Your task to perform on an android device: Show me popular games on the Play Store Image 0: 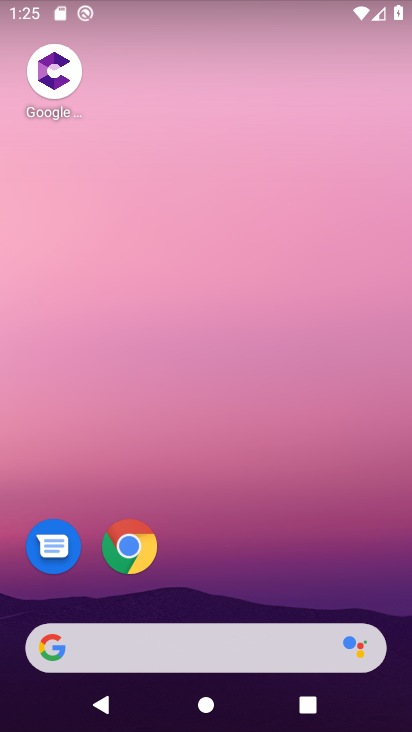
Step 0: drag from (170, 557) to (192, 246)
Your task to perform on an android device: Show me popular games on the Play Store Image 1: 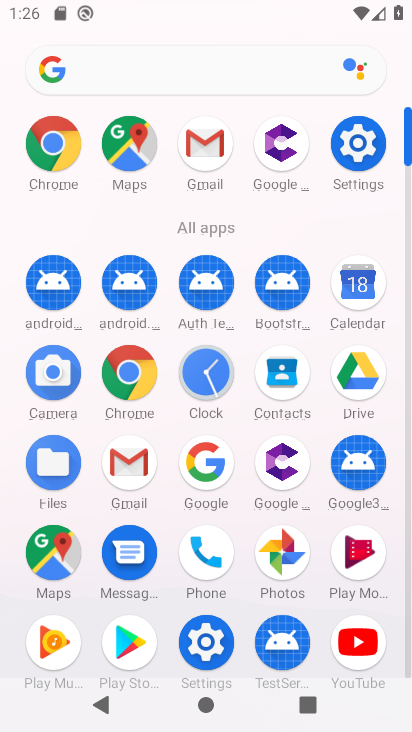
Step 1: click (135, 643)
Your task to perform on an android device: Show me popular games on the Play Store Image 2: 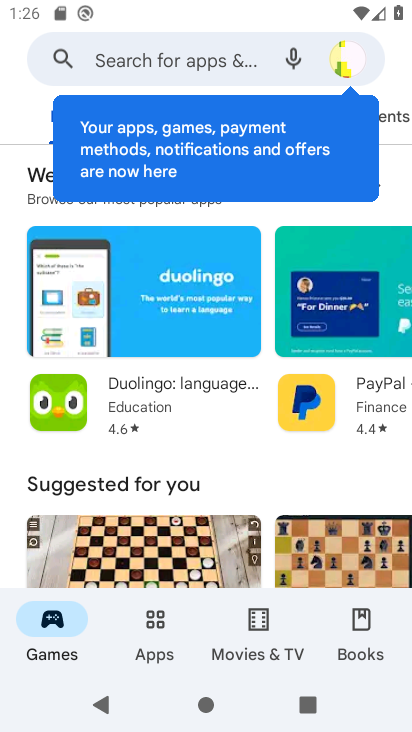
Step 2: click (168, 65)
Your task to perform on an android device: Show me popular games on the Play Store Image 3: 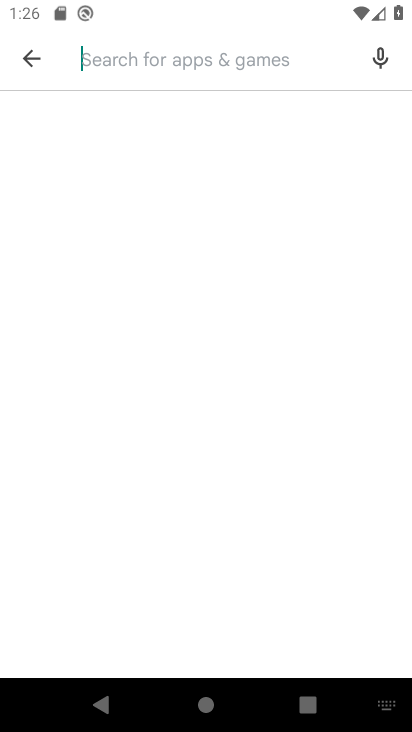
Step 3: type "popular games"
Your task to perform on an android device: Show me popular games on the Play Store Image 4: 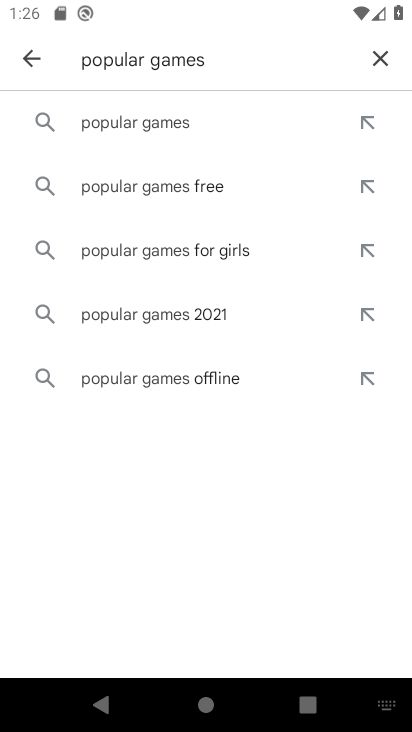
Step 4: click (121, 133)
Your task to perform on an android device: Show me popular games on the Play Store Image 5: 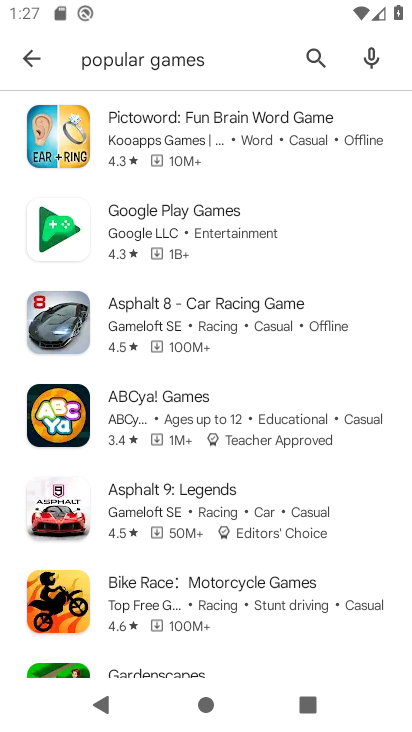
Step 5: task complete